Your task to perform on an android device: find snoozed emails in the gmail app Image 0: 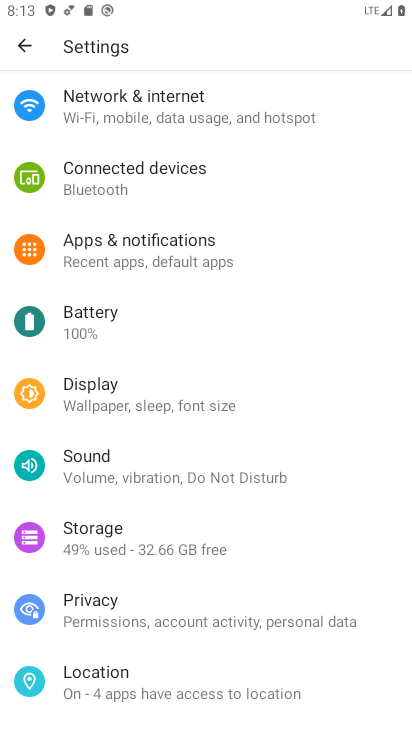
Step 0: press home button
Your task to perform on an android device: find snoozed emails in the gmail app Image 1: 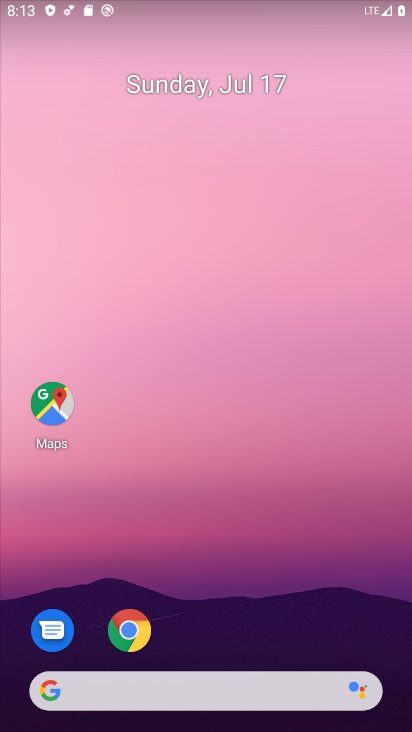
Step 1: drag from (266, 570) to (285, 4)
Your task to perform on an android device: find snoozed emails in the gmail app Image 2: 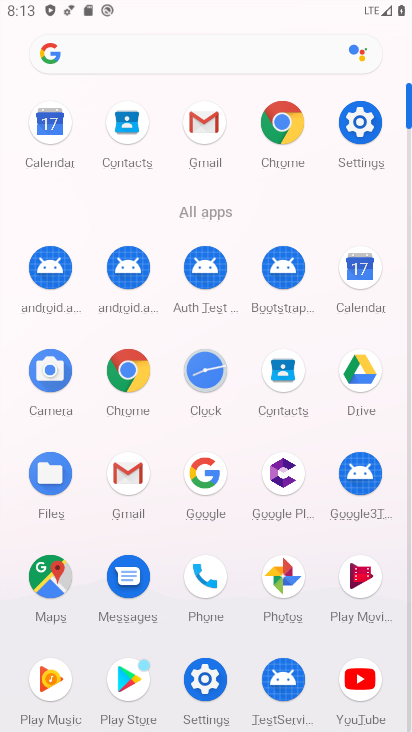
Step 2: click (132, 475)
Your task to perform on an android device: find snoozed emails in the gmail app Image 3: 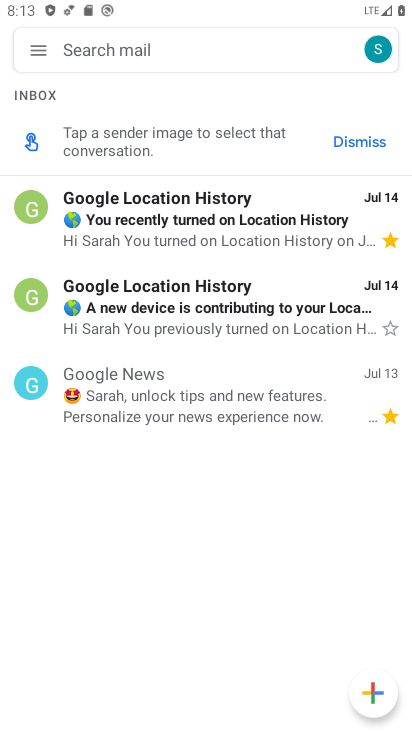
Step 3: click (34, 47)
Your task to perform on an android device: find snoozed emails in the gmail app Image 4: 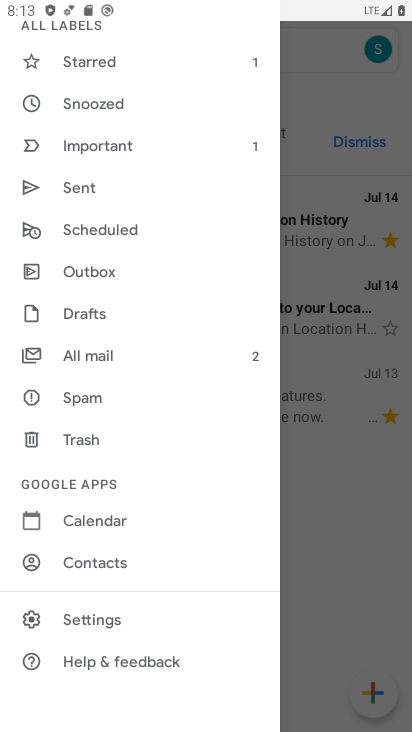
Step 4: click (97, 107)
Your task to perform on an android device: find snoozed emails in the gmail app Image 5: 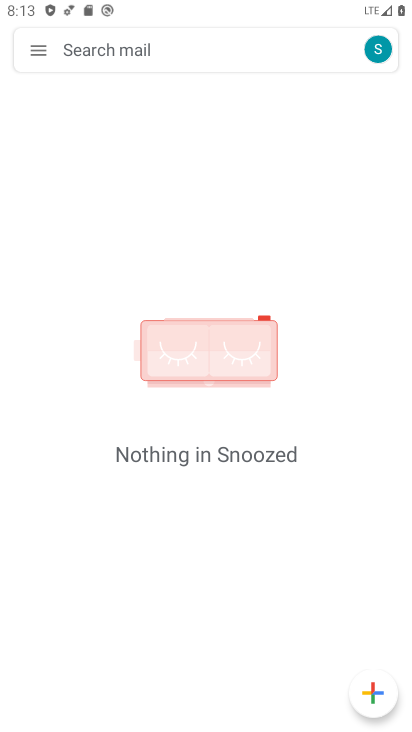
Step 5: task complete